Your task to perform on an android device: uninstall "LiveIn - Share Your Moment" Image 0: 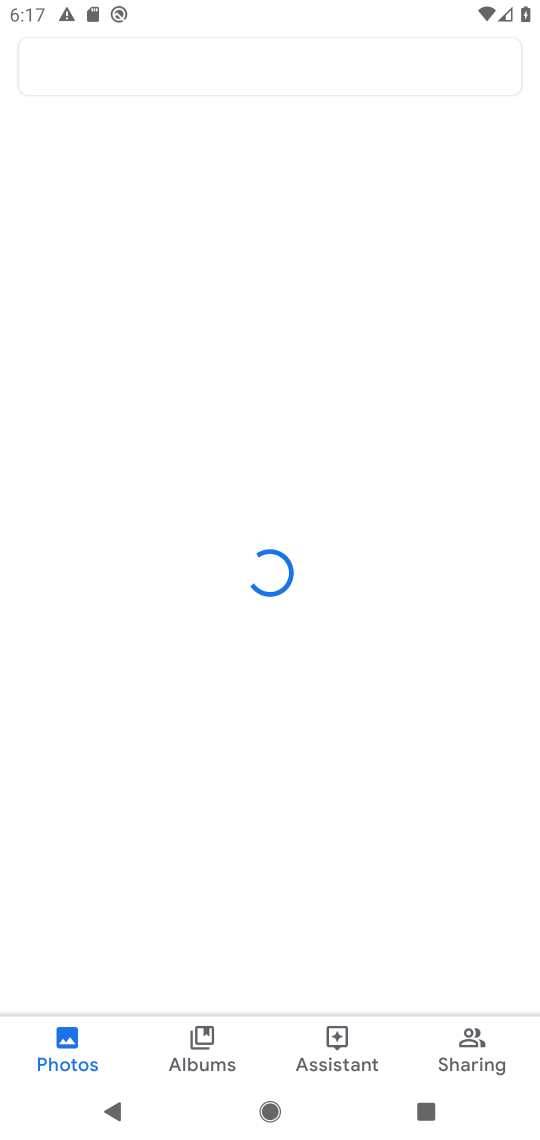
Step 0: press home button
Your task to perform on an android device: uninstall "LiveIn - Share Your Moment" Image 1: 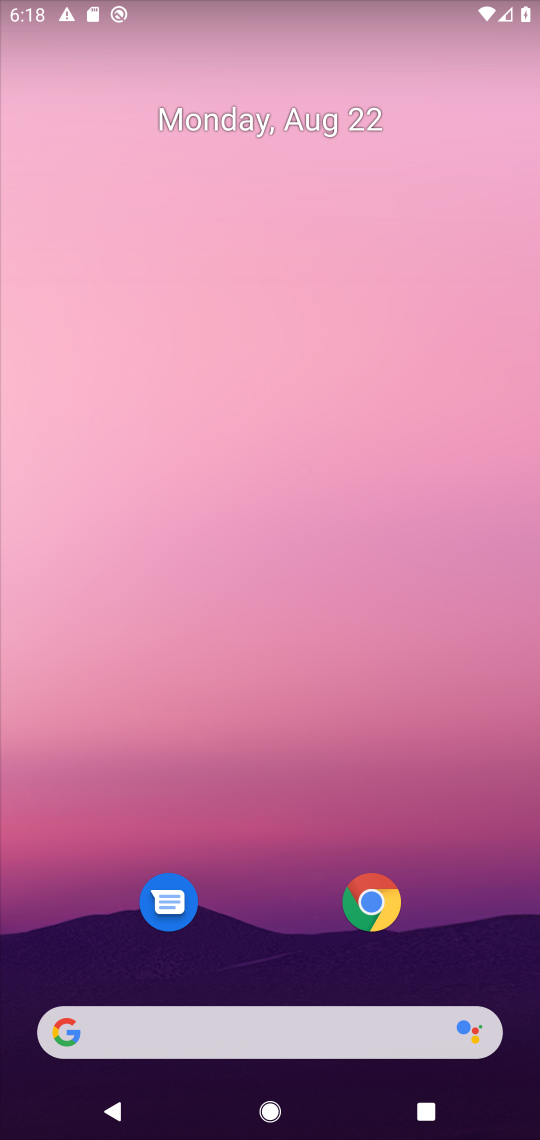
Step 1: click (275, 290)
Your task to perform on an android device: uninstall "LiveIn - Share Your Moment" Image 2: 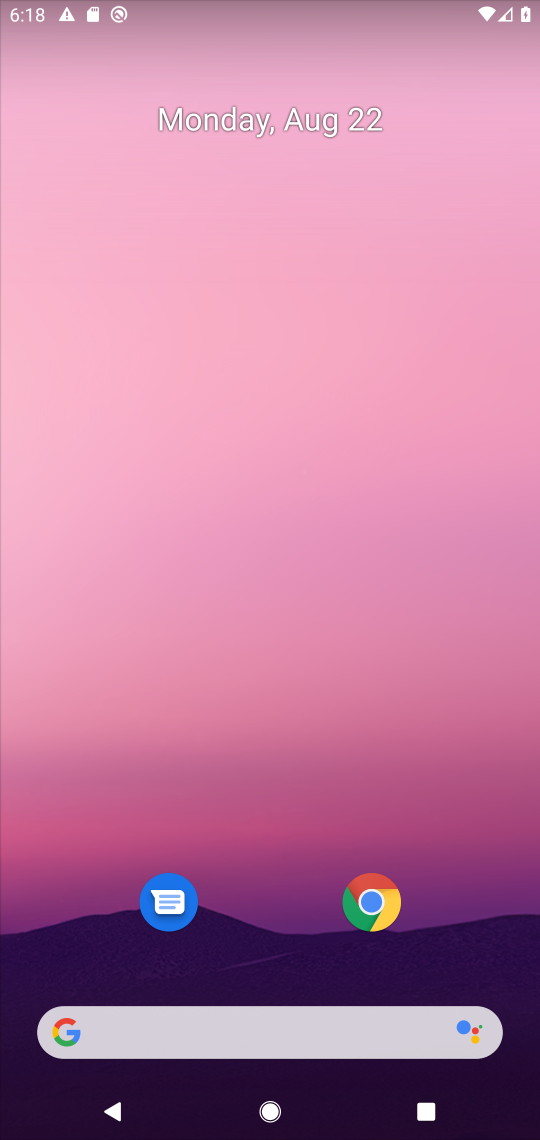
Step 2: drag from (254, 948) to (287, 280)
Your task to perform on an android device: uninstall "LiveIn - Share Your Moment" Image 3: 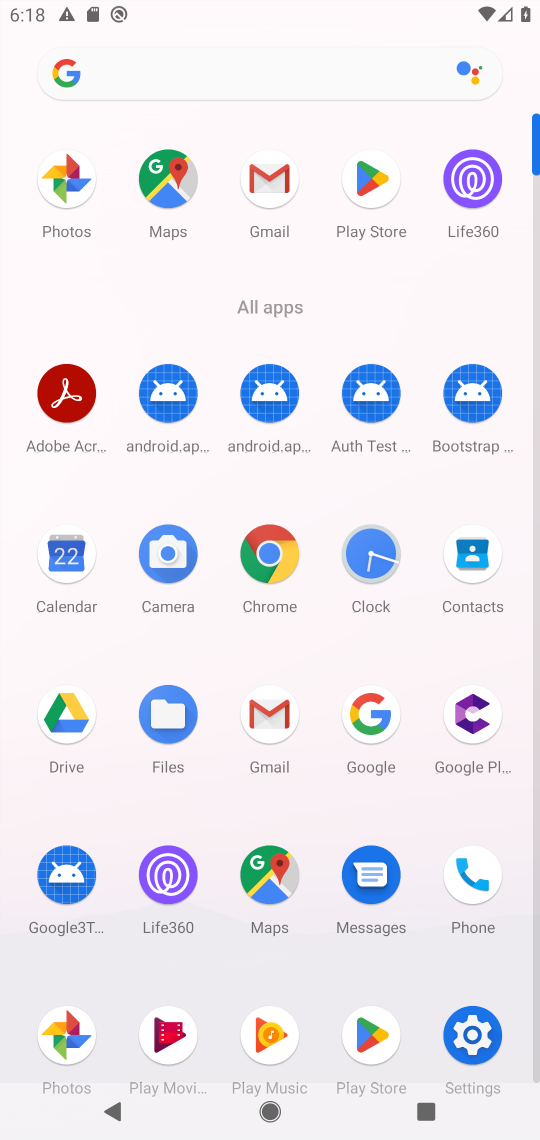
Step 3: click (374, 193)
Your task to perform on an android device: uninstall "LiveIn - Share Your Moment" Image 4: 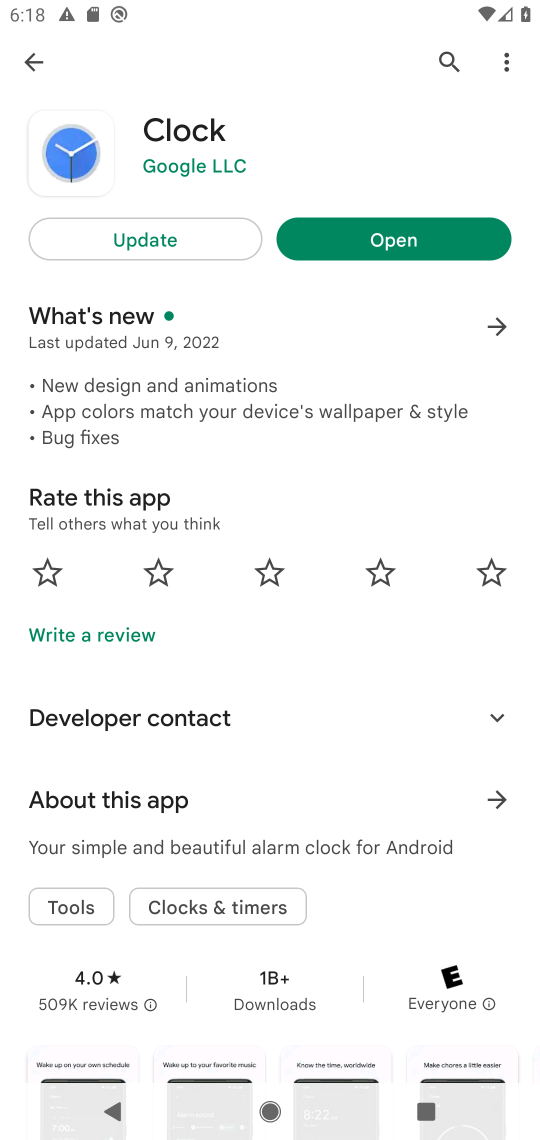
Step 4: click (40, 52)
Your task to perform on an android device: uninstall "LiveIn - Share Your Moment" Image 5: 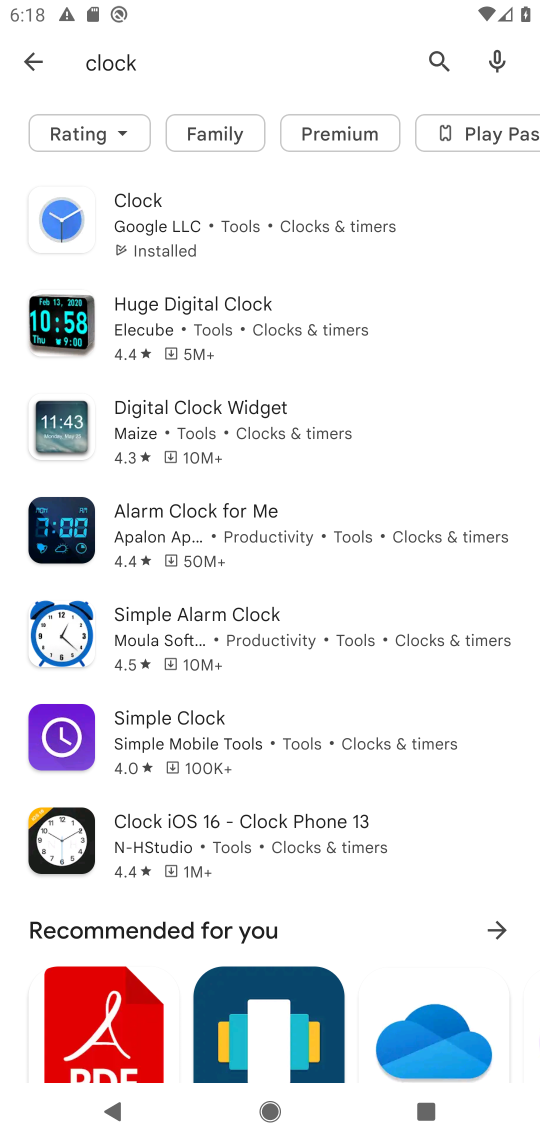
Step 5: click (41, 57)
Your task to perform on an android device: uninstall "LiveIn - Share Your Moment" Image 6: 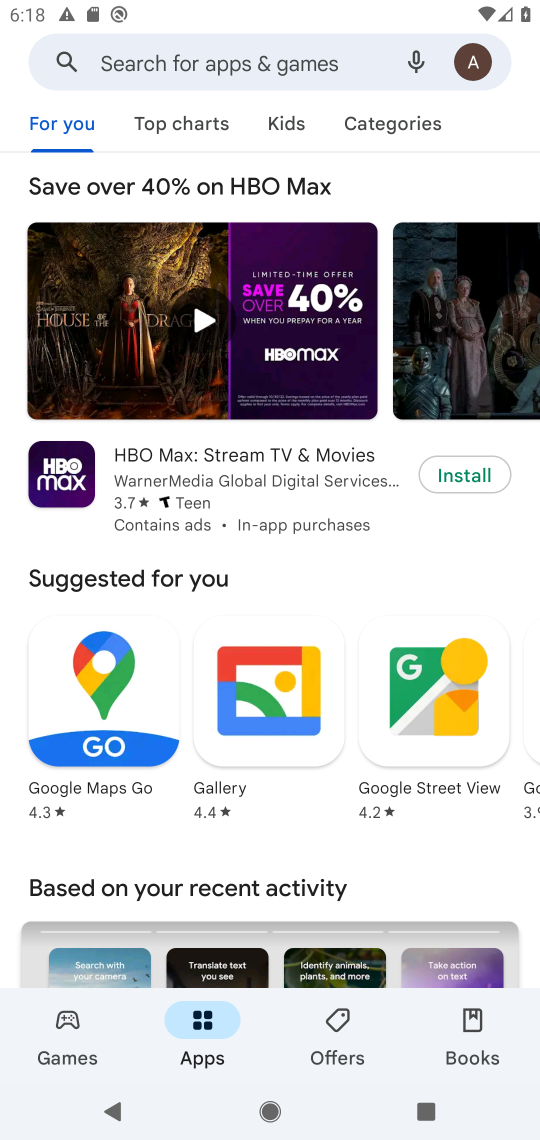
Step 6: click (126, 63)
Your task to perform on an android device: uninstall "LiveIn - Share Your Moment" Image 7: 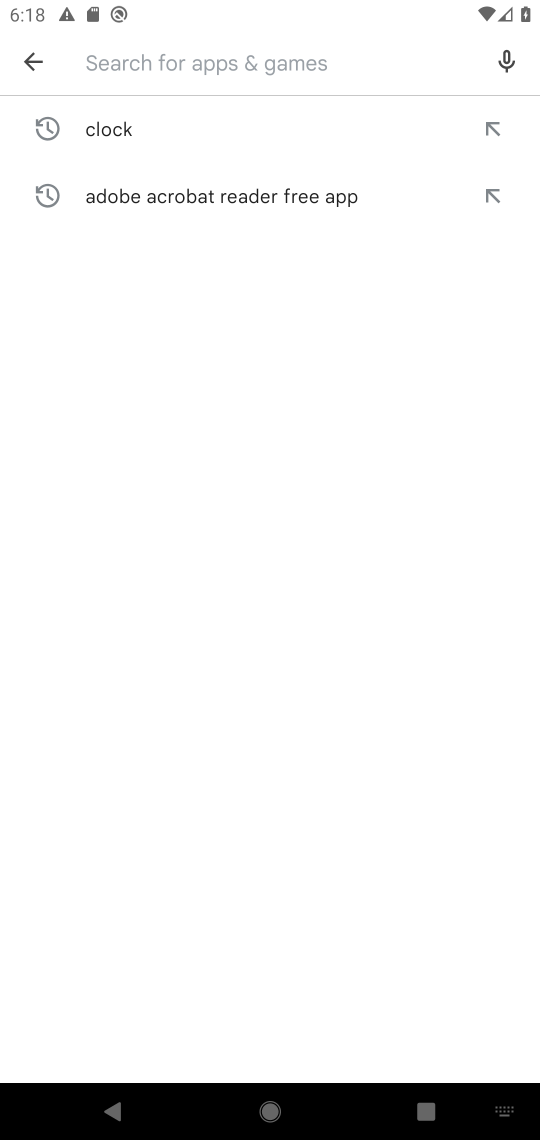
Step 7: type "LiveIn - Share Your Moment"
Your task to perform on an android device: uninstall "LiveIn - Share Your Moment" Image 8: 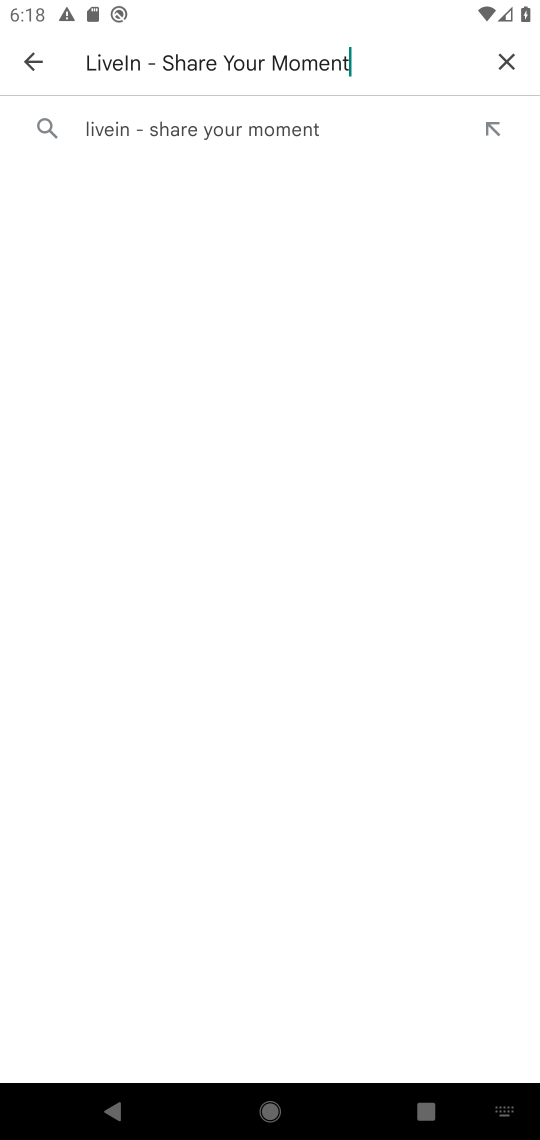
Step 8: click (218, 135)
Your task to perform on an android device: uninstall "LiveIn - Share Your Moment" Image 9: 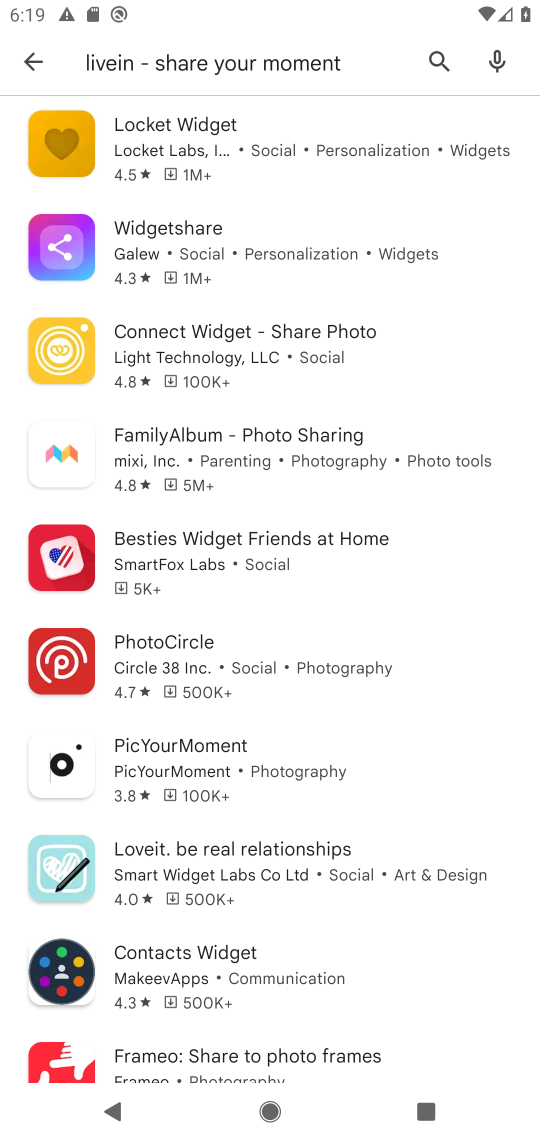
Step 9: task complete